Your task to perform on an android device: turn on improve location accuracy Image 0: 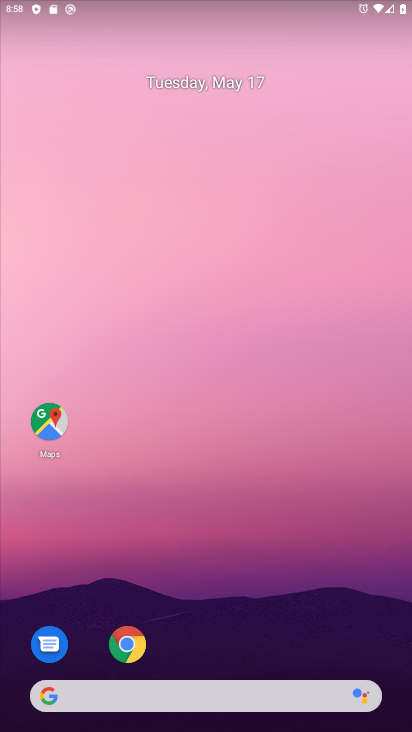
Step 0: drag from (228, 670) to (269, 3)
Your task to perform on an android device: turn on improve location accuracy Image 1: 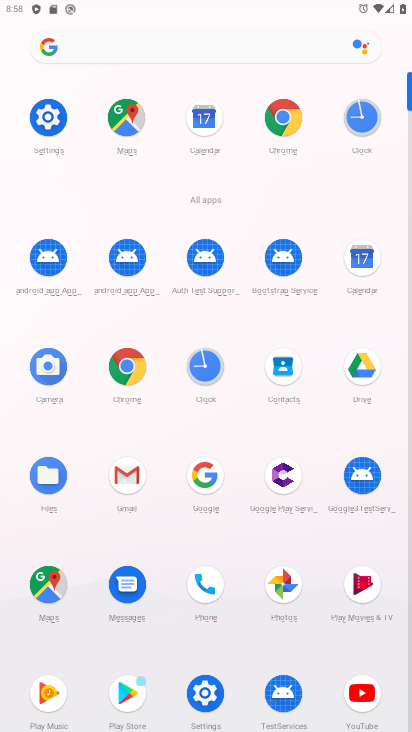
Step 1: drag from (237, 623) to (250, 84)
Your task to perform on an android device: turn on improve location accuracy Image 2: 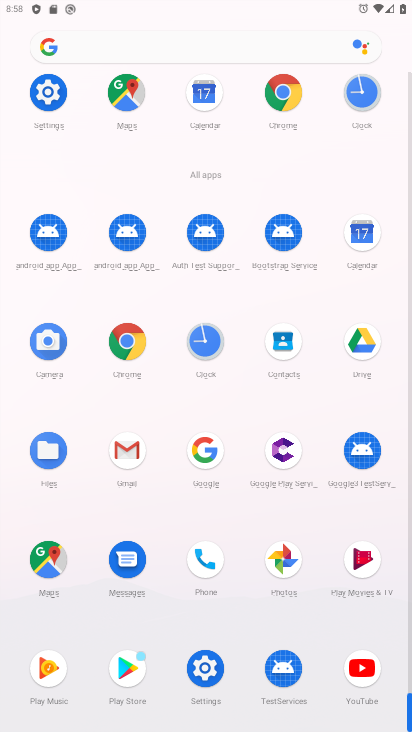
Step 2: click (200, 670)
Your task to perform on an android device: turn on improve location accuracy Image 3: 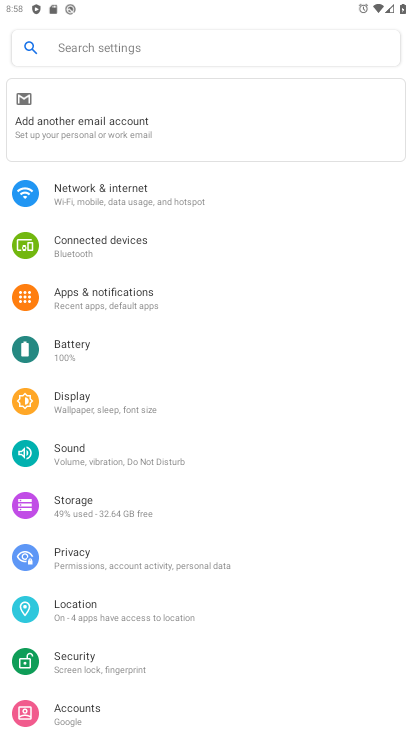
Step 3: click (109, 605)
Your task to perform on an android device: turn on improve location accuracy Image 4: 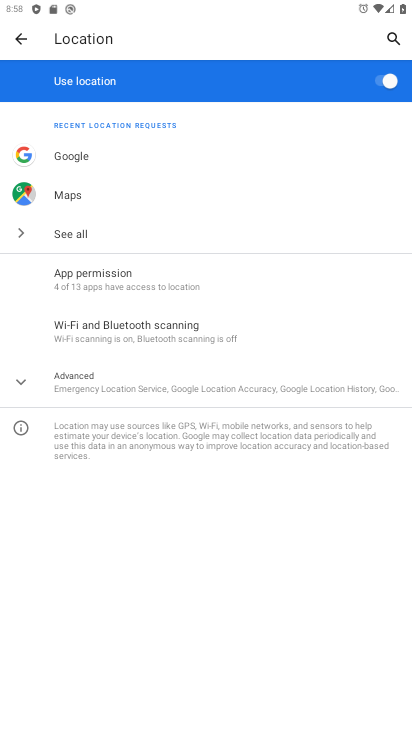
Step 4: click (23, 376)
Your task to perform on an android device: turn on improve location accuracy Image 5: 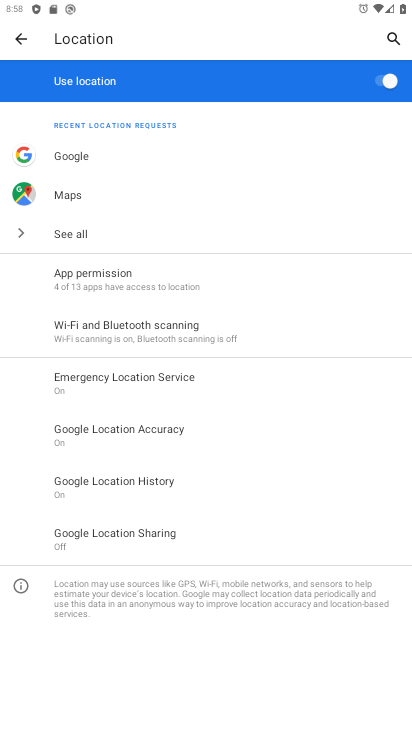
Step 5: click (144, 435)
Your task to perform on an android device: turn on improve location accuracy Image 6: 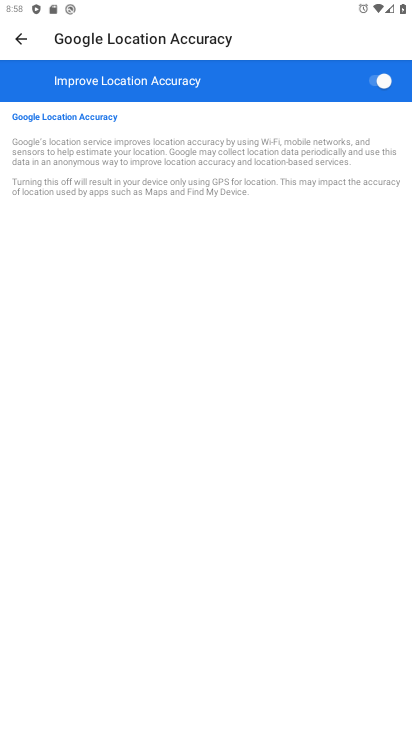
Step 6: task complete